Your task to perform on an android device: open wifi settings Image 0: 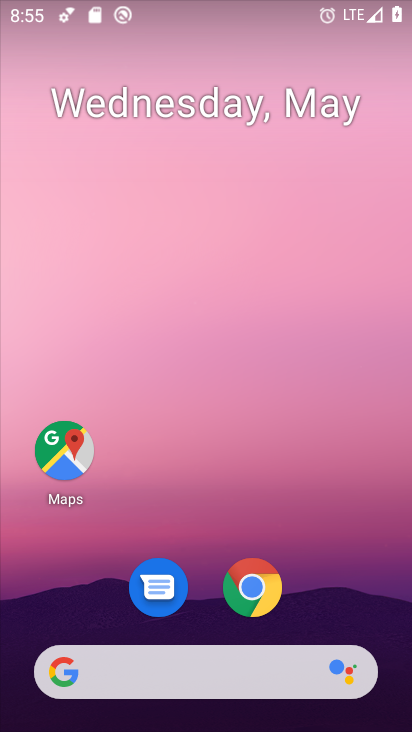
Step 0: drag from (216, 590) to (247, 258)
Your task to perform on an android device: open wifi settings Image 1: 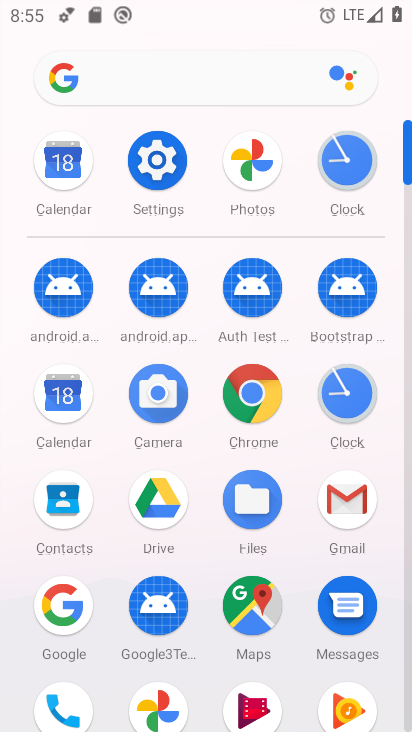
Step 1: click (153, 155)
Your task to perform on an android device: open wifi settings Image 2: 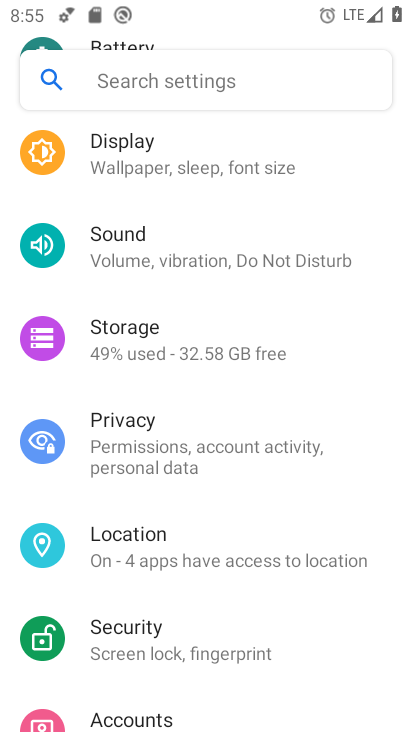
Step 2: drag from (239, 194) to (194, 641)
Your task to perform on an android device: open wifi settings Image 3: 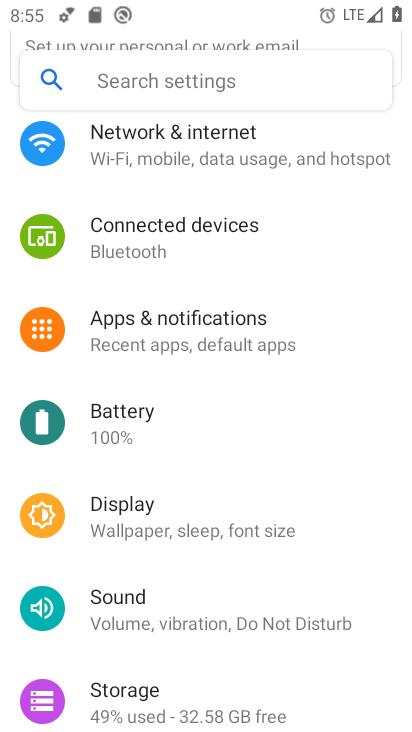
Step 3: drag from (221, 227) to (196, 525)
Your task to perform on an android device: open wifi settings Image 4: 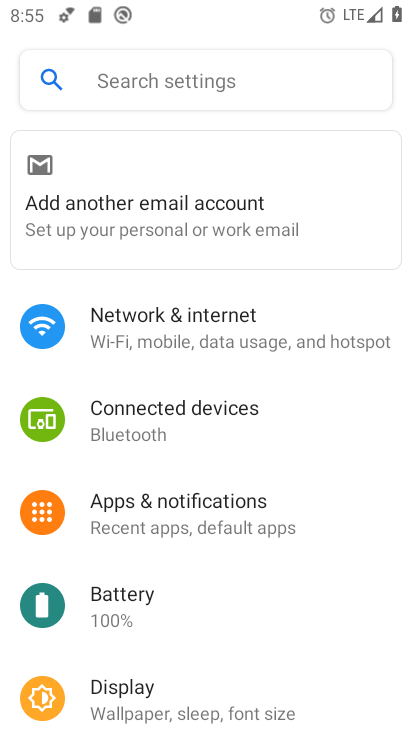
Step 4: click (198, 345)
Your task to perform on an android device: open wifi settings Image 5: 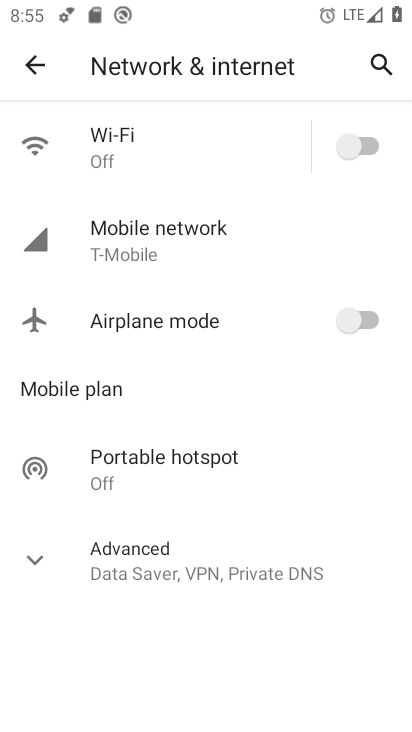
Step 5: click (169, 151)
Your task to perform on an android device: open wifi settings Image 6: 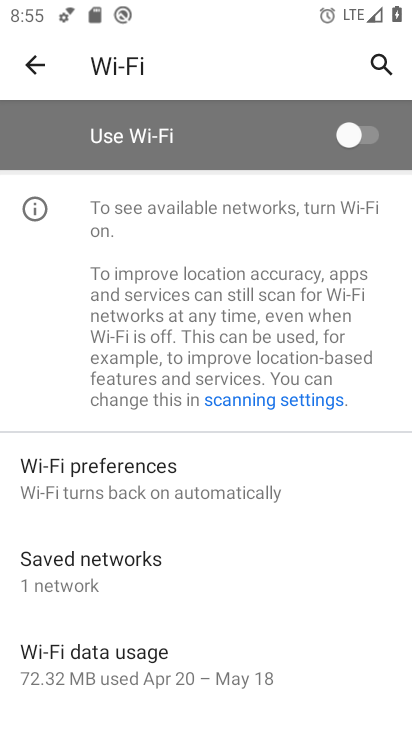
Step 6: task complete